Your task to perform on an android device: Turn off the flashlight Image 0: 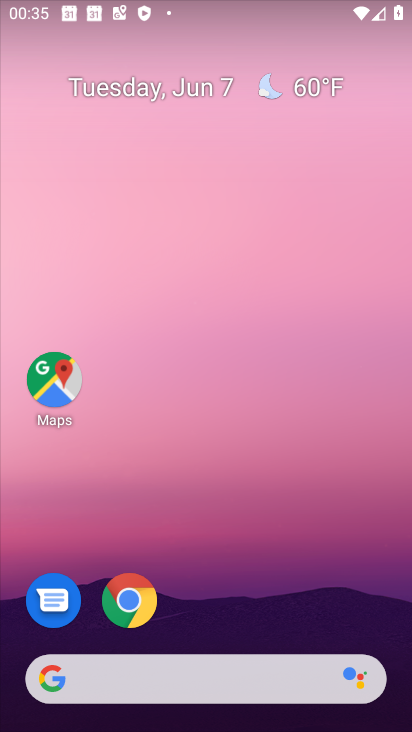
Step 0: drag from (223, 722) to (199, 225)
Your task to perform on an android device: Turn off the flashlight Image 1: 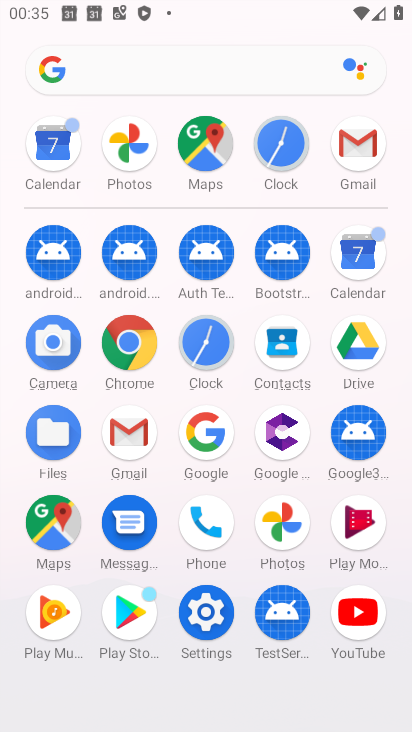
Step 1: click (200, 612)
Your task to perform on an android device: Turn off the flashlight Image 2: 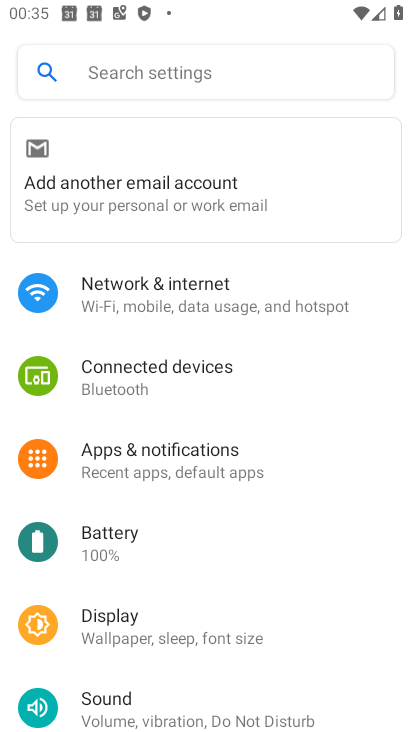
Step 2: task complete